Your task to perform on an android device: see creations saved in the google photos Image 0: 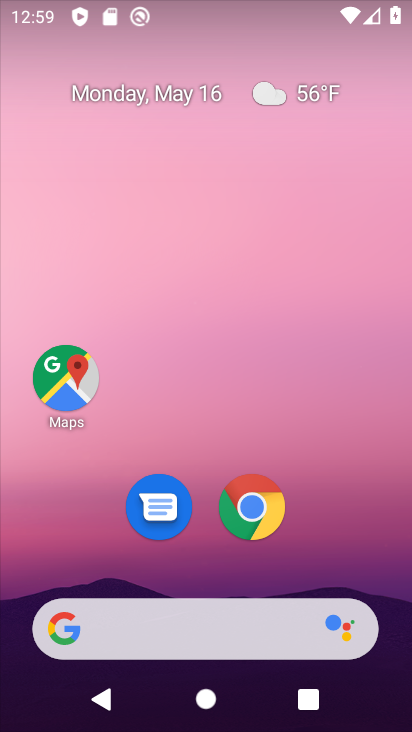
Step 0: drag from (224, 557) to (228, 151)
Your task to perform on an android device: see creations saved in the google photos Image 1: 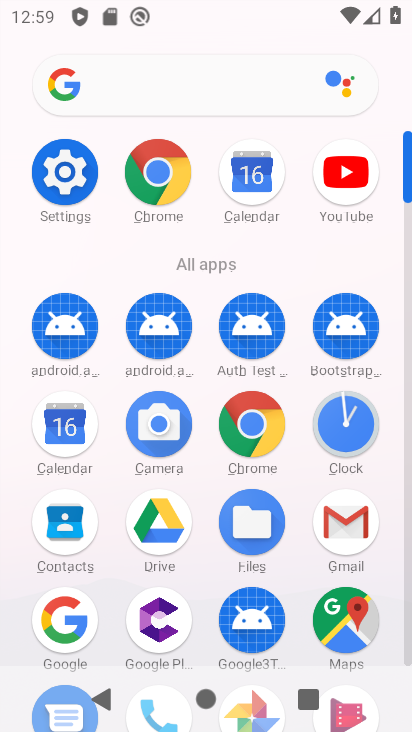
Step 1: drag from (203, 570) to (228, 241)
Your task to perform on an android device: see creations saved in the google photos Image 2: 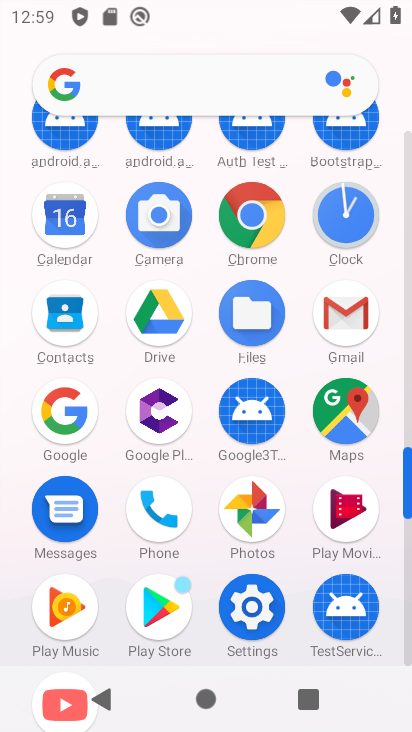
Step 2: click (269, 520)
Your task to perform on an android device: see creations saved in the google photos Image 3: 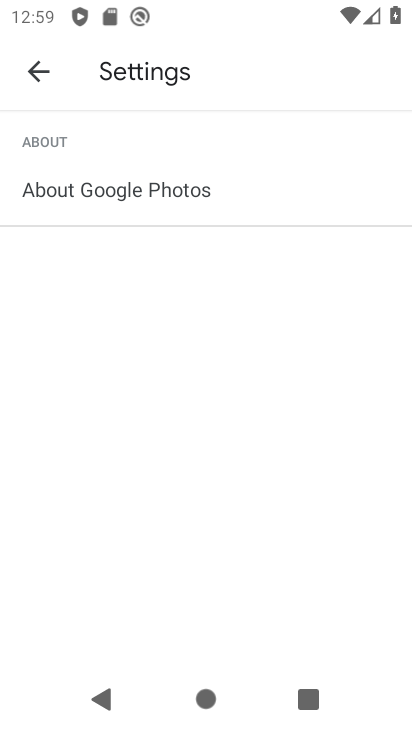
Step 3: click (36, 84)
Your task to perform on an android device: see creations saved in the google photos Image 4: 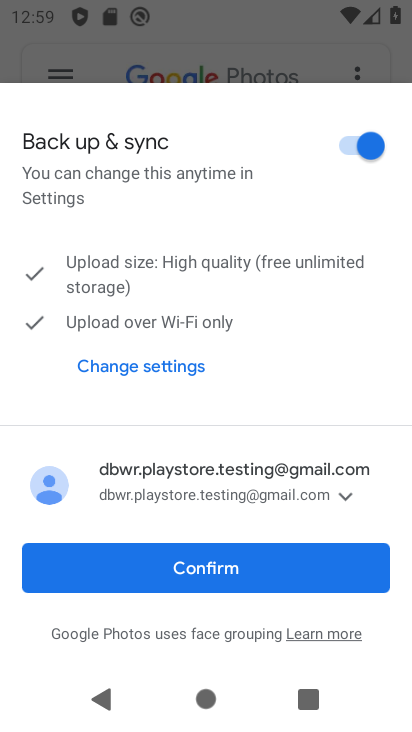
Step 4: click (288, 556)
Your task to perform on an android device: see creations saved in the google photos Image 5: 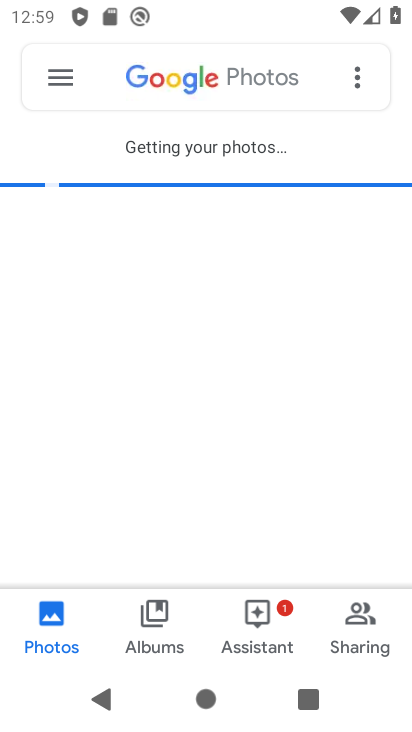
Step 5: click (203, 86)
Your task to perform on an android device: see creations saved in the google photos Image 6: 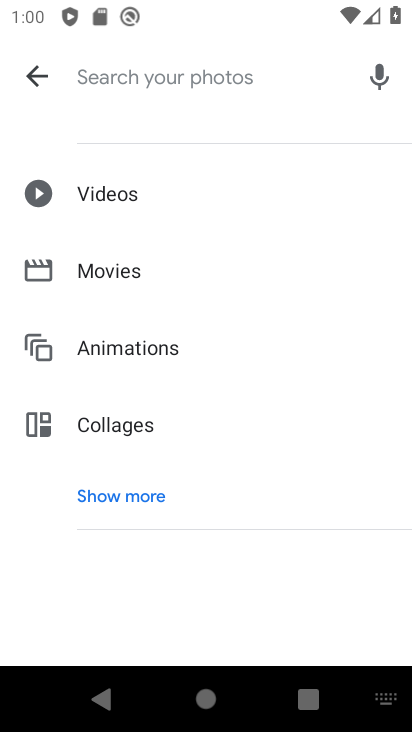
Step 6: click (125, 489)
Your task to perform on an android device: see creations saved in the google photos Image 7: 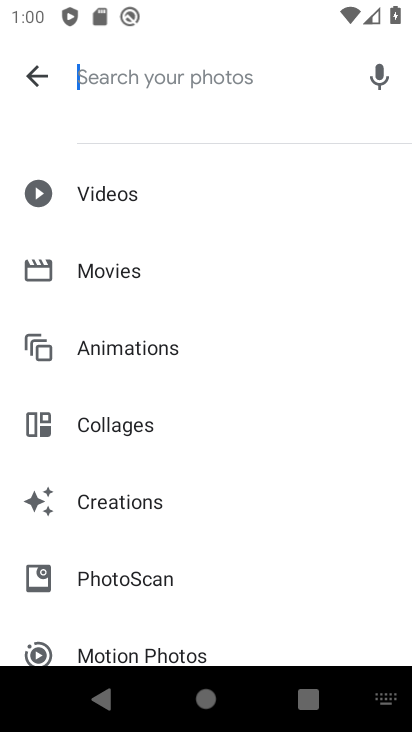
Step 7: click (128, 488)
Your task to perform on an android device: see creations saved in the google photos Image 8: 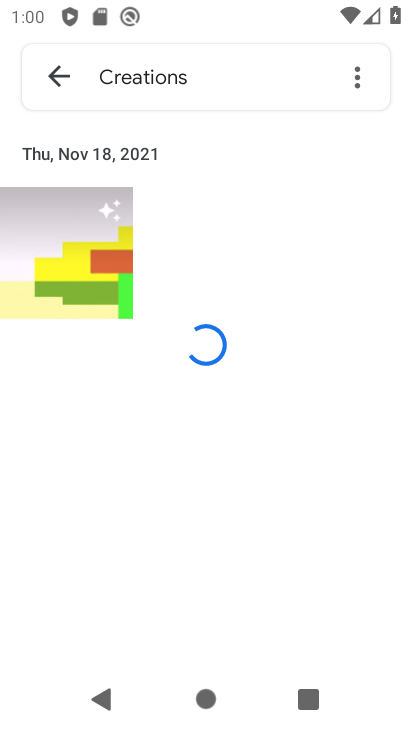
Step 8: task complete